Your task to perform on an android device: Open Google Maps Image 0: 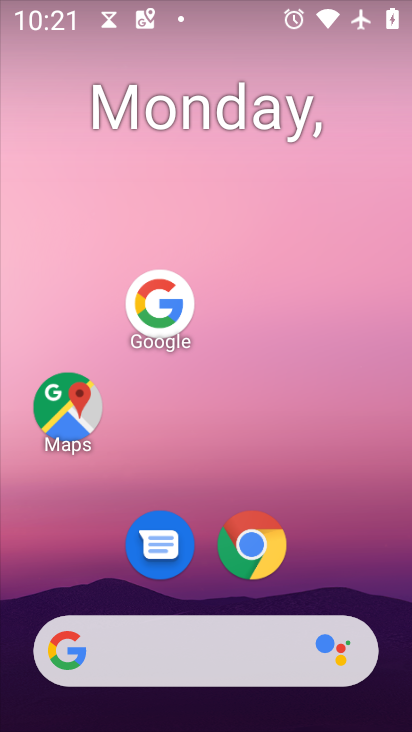
Step 0: press home button
Your task to perform on an android device: Open Google Maps Image 1: 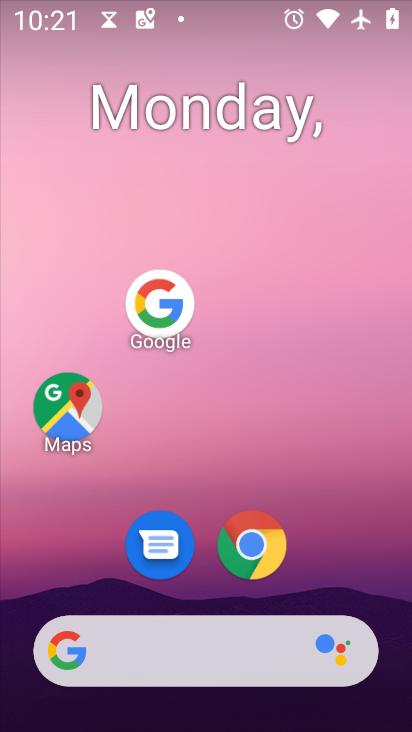
Step 1: click (69, 421)
Your task to perform on an android device: Open Google Maps Image 2: 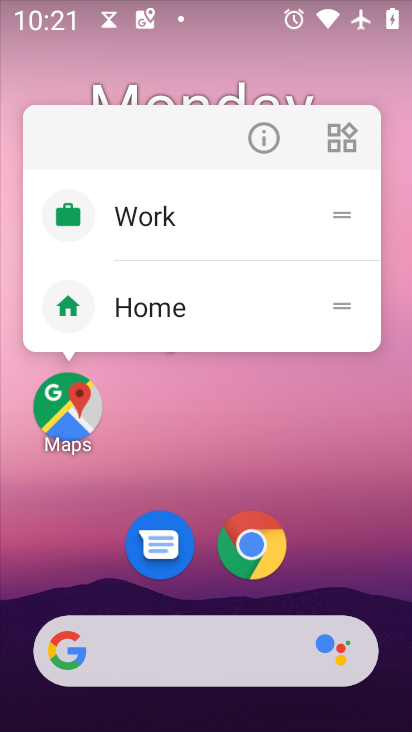
Step 2: click (61, 430)
Your task to perform on an android device: Open Google Maps Image 3: 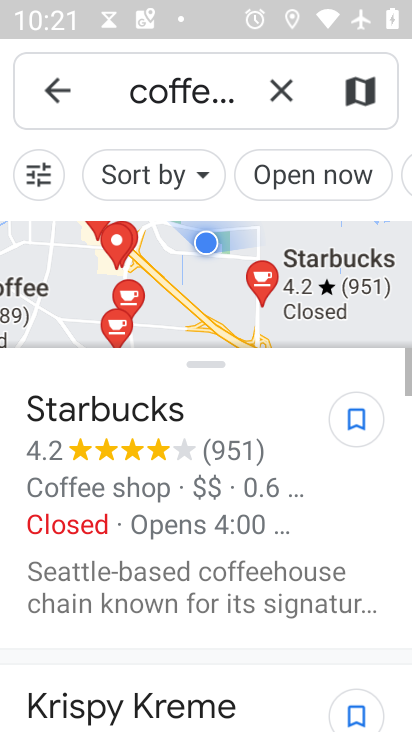
Step 3: click (66, 90)
Your task to perform on an android device: Open Google Maps Image 4: 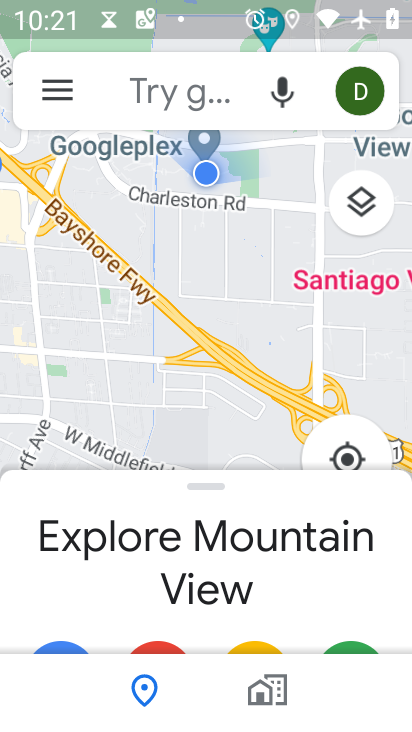
Step 4: task complete